Your task to perform on an android device: Open notification settings Image 0: 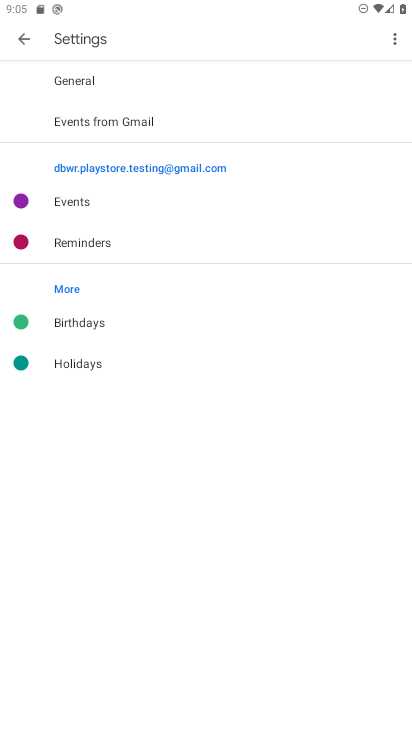
Step 0: press home button
Your task to perform on an android device: Open notification settings Image 1: 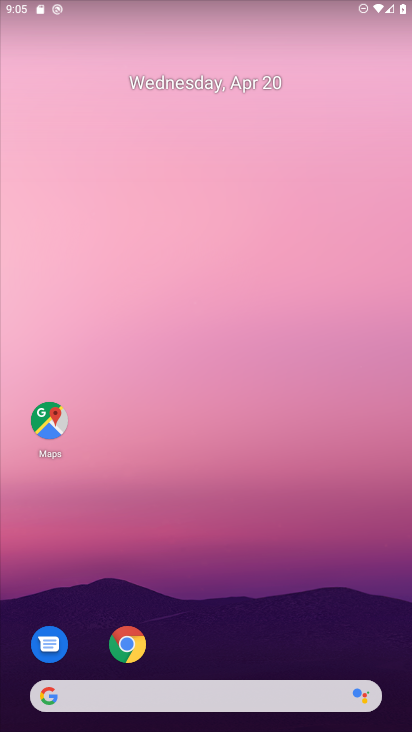
Step 1: drag from (319, 483) to (260, 78)
Your task to perform on an android device: Open notification settings Image 2: 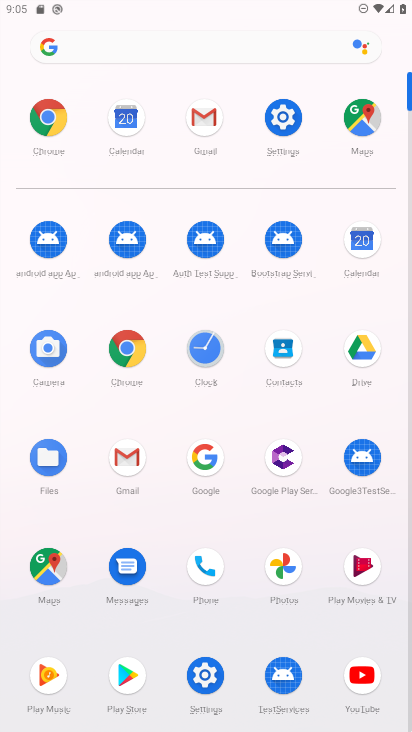
Step 2: click (197, 675)
Your task to perform on an android device: Open notification settings Image 3: 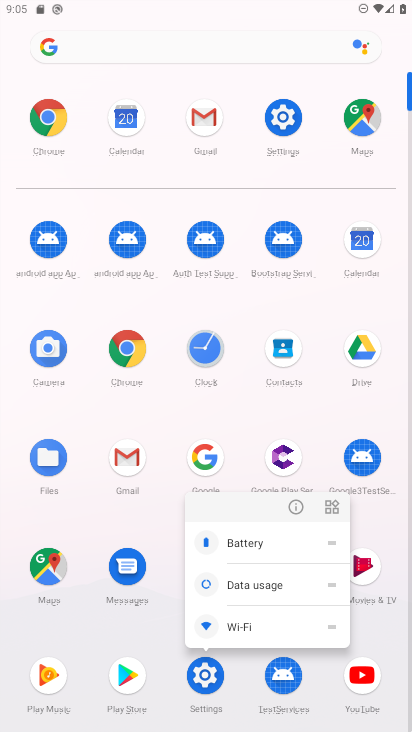
Step 3: click (212, 671)
Your task to perform on an android device: Open notification settings Image 4: 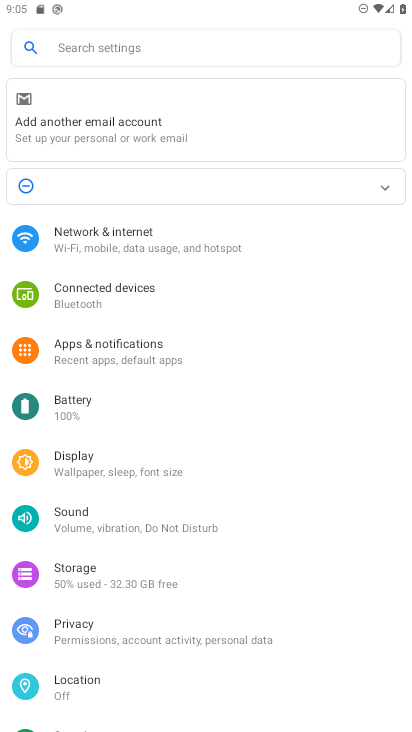
Step 4: click (147, 344)
Your task to perform on an android device: Open notification settings Image 5: 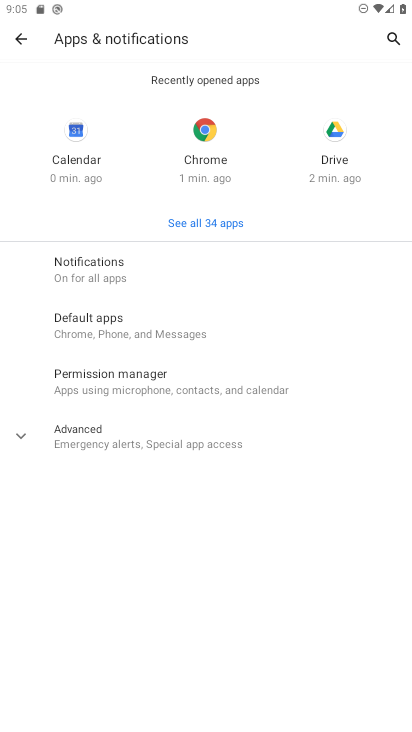
Step 5: task complete